Your task to perform on an android device: turn off smart reply in the gmail app Image 0: 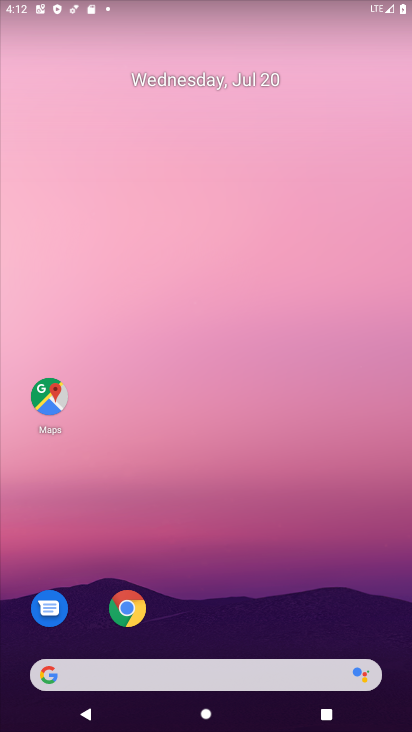
Step 0: drag from (233, 626) to (287, 215)
Your task to perform on an android device: turn off smart reply in the gmail app Image 1: 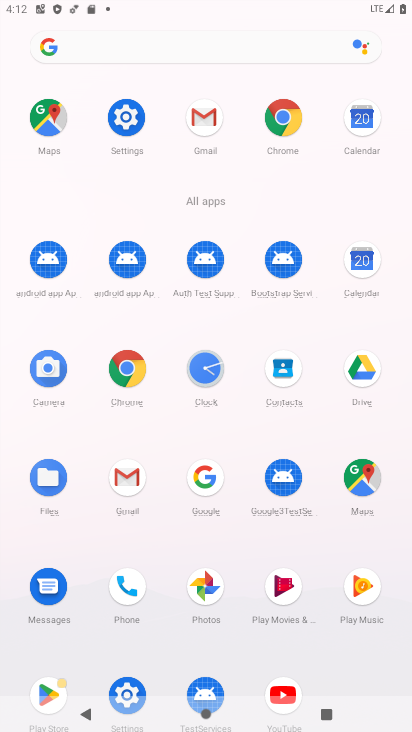
Step 1: click (130, 470)
Your task to perform on an android device: turn off smart reply in the gmail app Image 2: 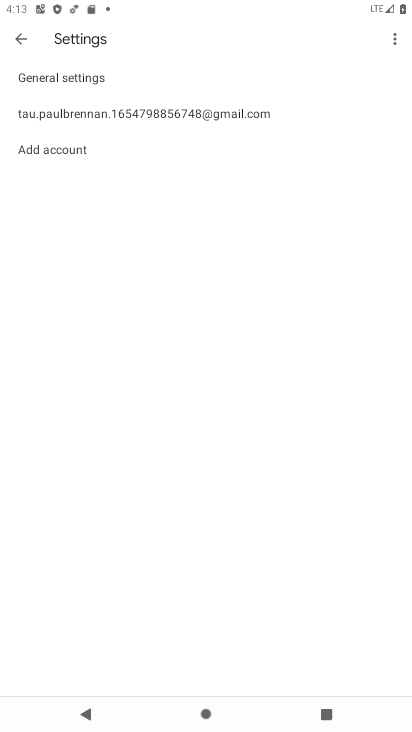
Step 2: click (260, 108)
Your task to perform on an android device: turn off smart reply in the gmail app Image 3: 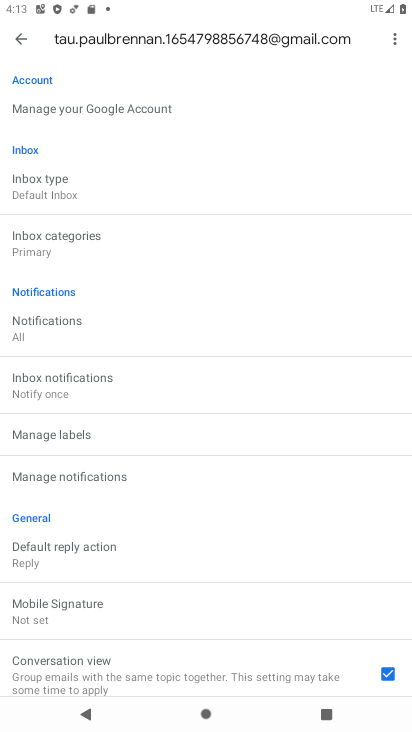
Step 3: drag from (142, 618) to (207, 314)
Your task to perform on an android device: turn off smart reply in the gmail app Image 4: 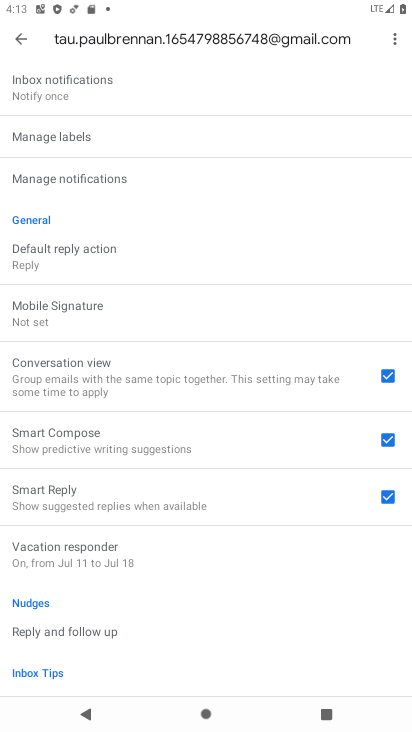
Step 4: click (385, 495)
Your task to perform on an android device: turn off smart reply in the gmail app Image 5: 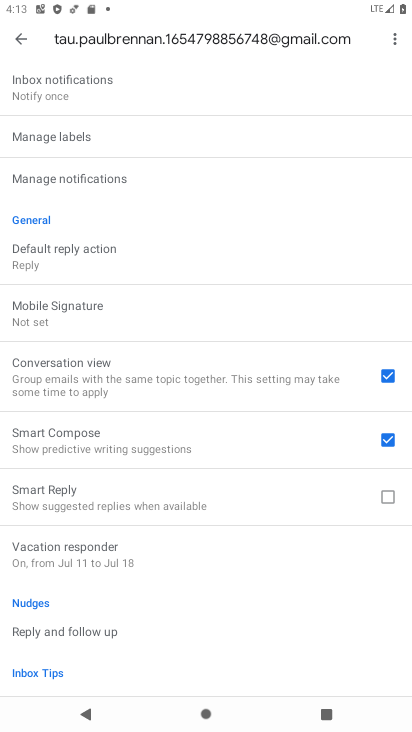
Step 5: task complete